Your task to perform on an android device: turn on notifications settings in the gmail app Image 0: 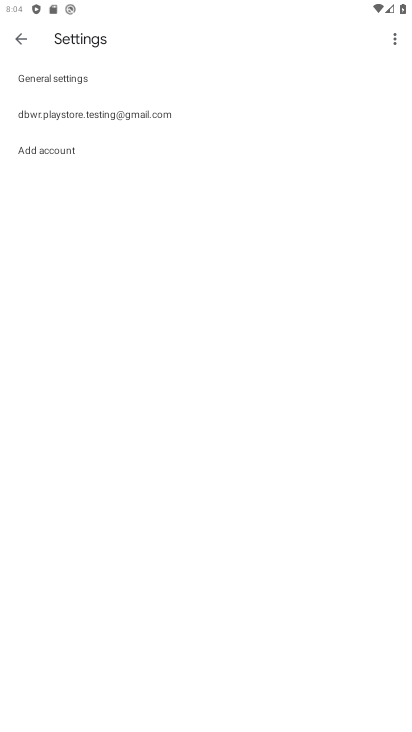
Step 0: press home button
Your task to perform on an android device: turn on notifications settings in the gmail app Image 1: 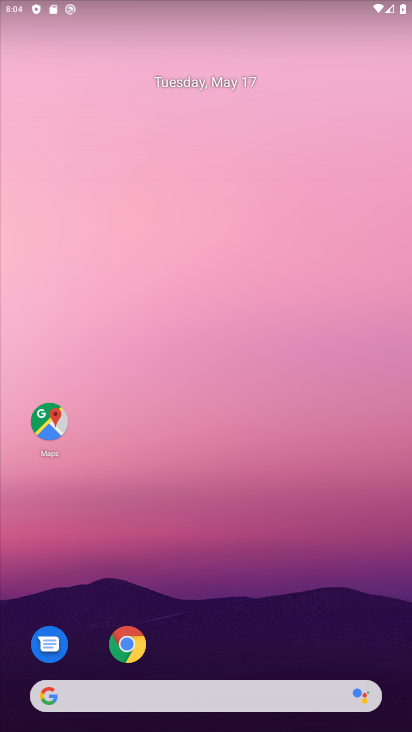
Step 1: drag from (222, 633) to (299, 93)
Your task to perform on an android device: turn on notifications settings in the gmail app Image 2: 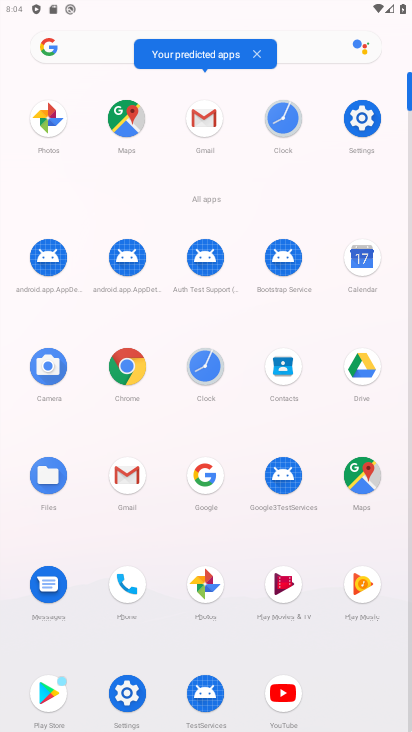
Step 2: click (209, 126)
Your task to perform on an android device: turn on notifications settings in the gmail app Image 3: 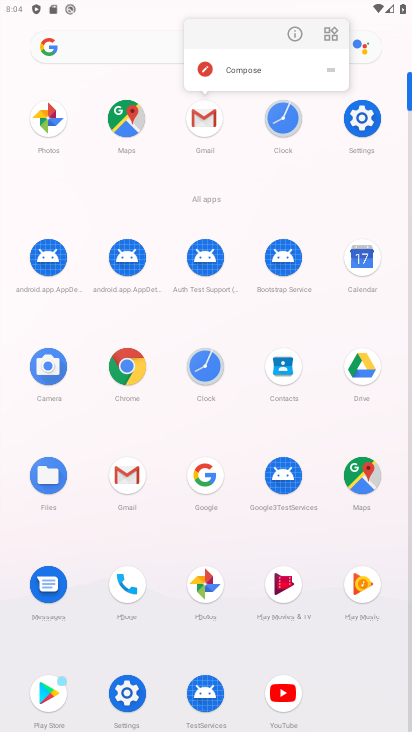
Step 3: click (291, 34)
Your task to perform on an android device: turn on notifications settings in the gmail app Image 4: 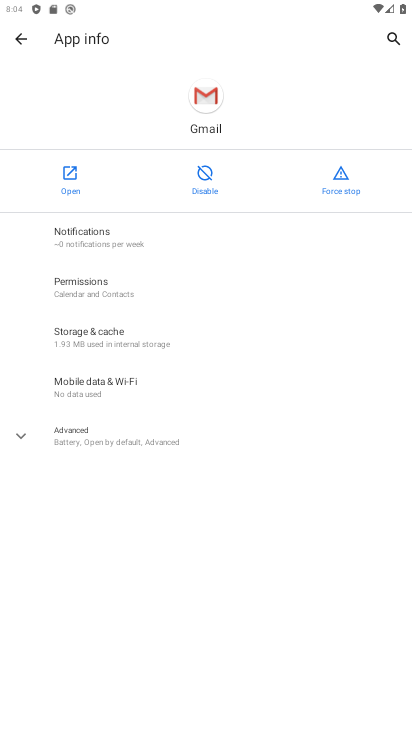
Step 4: click (90, 238)
Your task to perform on an android device: turn on notifications settings in the gmail app Image 5: 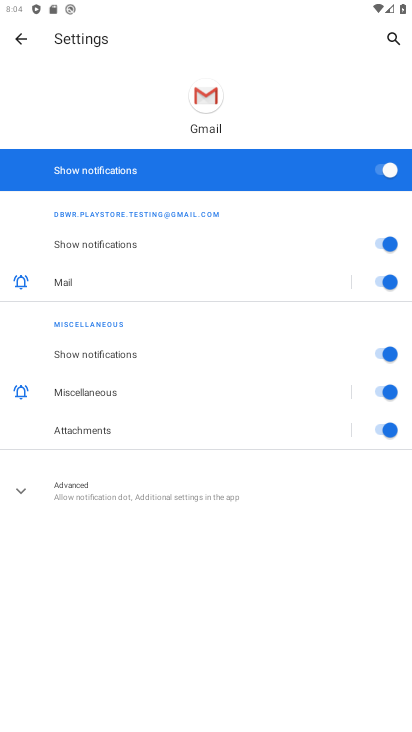
Step 5: task complete